Your task to perform on an android device: change alarm snooze length Image 0: 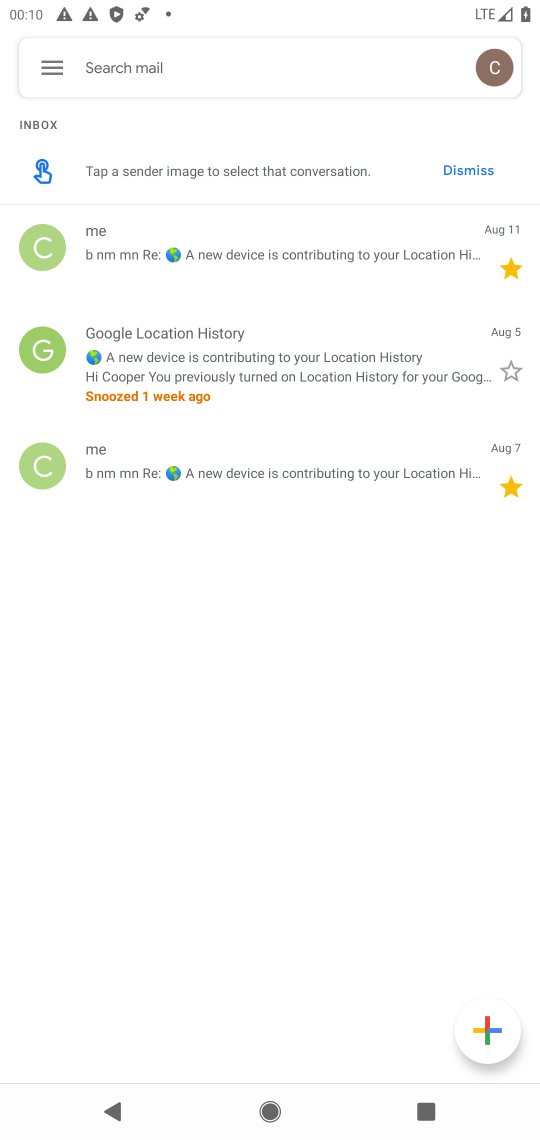
Step 0: press home button
Your task to perform on an android device: change alarm snooze length Image 1: 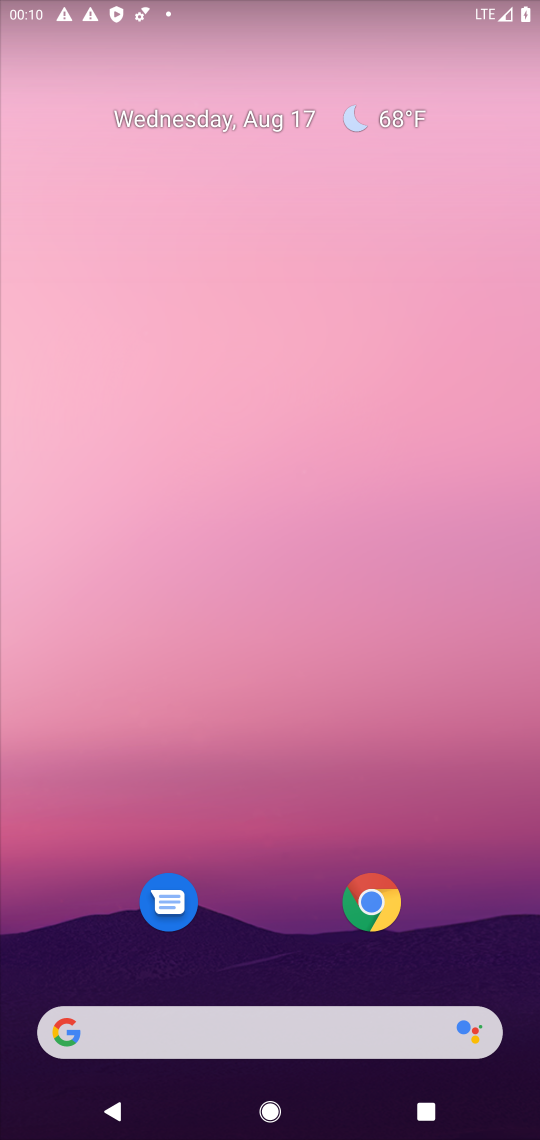
Step 1: drag from (271, 1010) to (354, 0)
Your task to perform on an android device: change alarm snooze length Image 2: 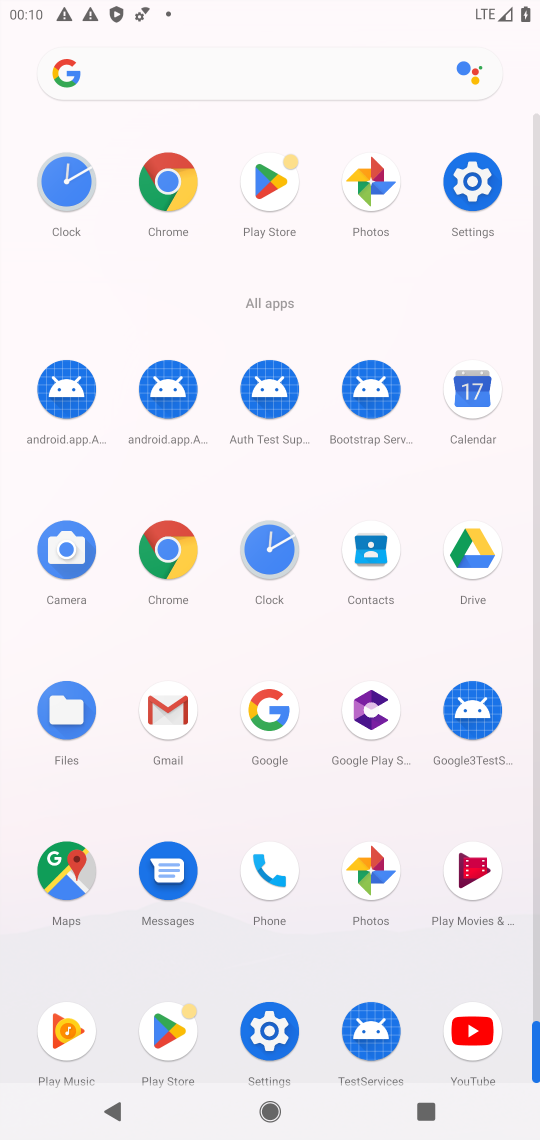
Step 2: click (266, 1008)
Your task to perform on an android device: change alarm snooze length Image 3: 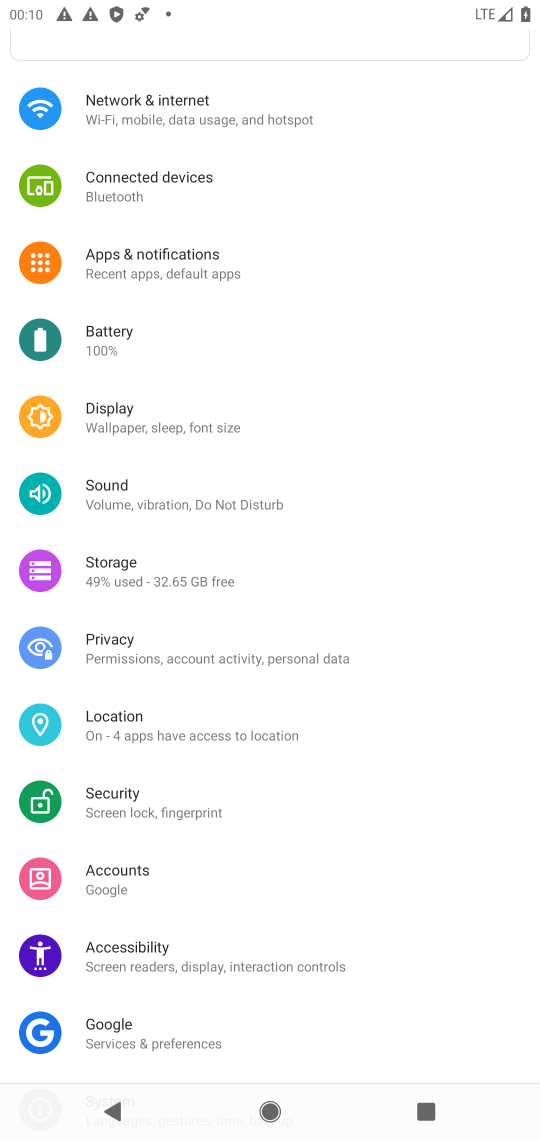
Step 3: press home button
Your task to perform on an android device: change alarm snooze length Image 4: 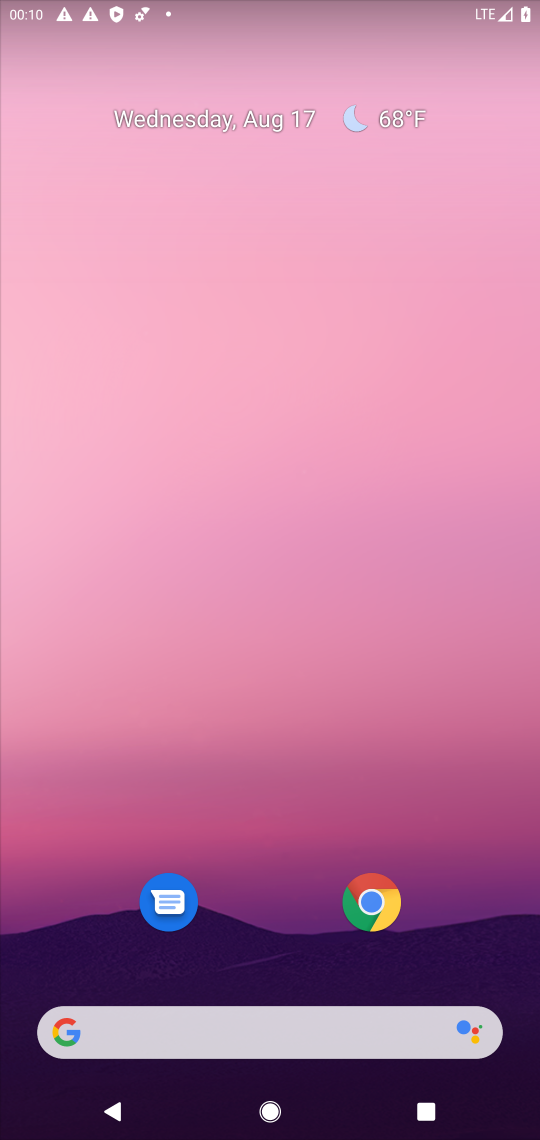
Step 4: drag from (211, 902) to (266, 355)
Your task to perform on an android device: change alarm snooze length Image 5: 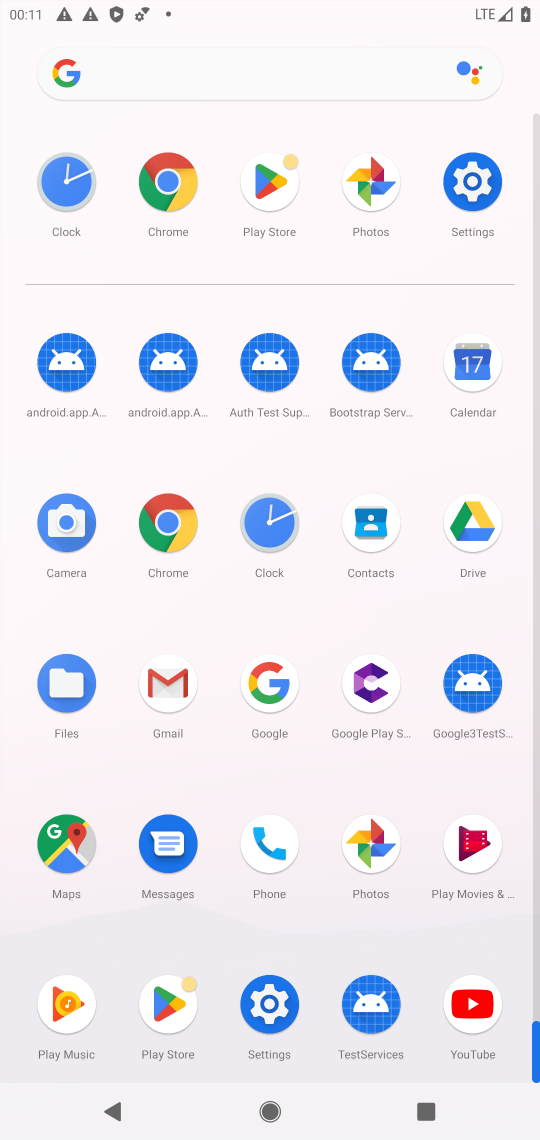
Step 5: click (257, 548)
Your task to perform on an android device: change alarm snooze length Image 6: 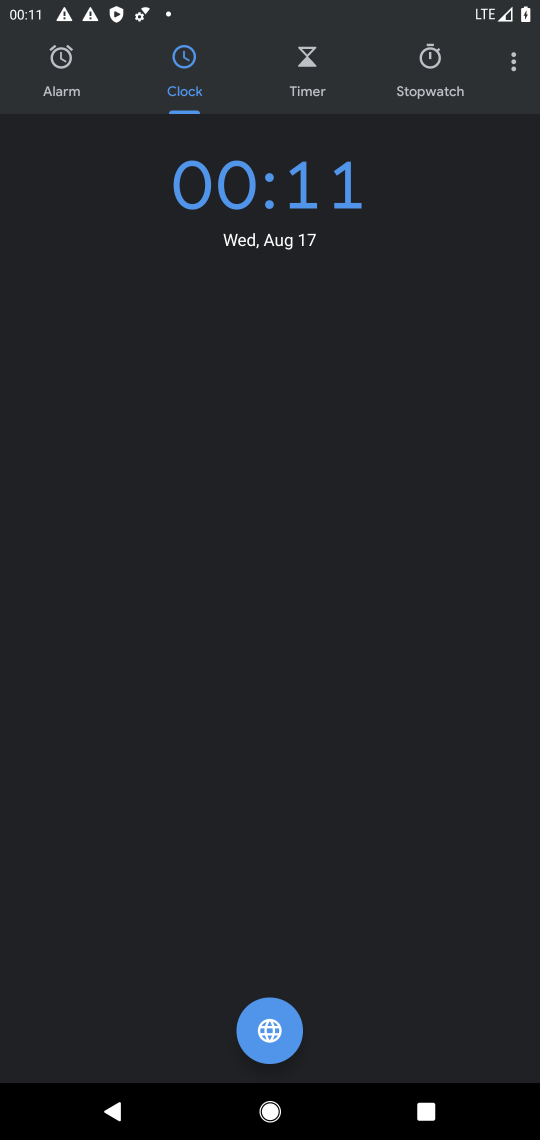
Step 6: click (512, 60)
Your task to perform on an android device: change alarm snooze length Image 7: 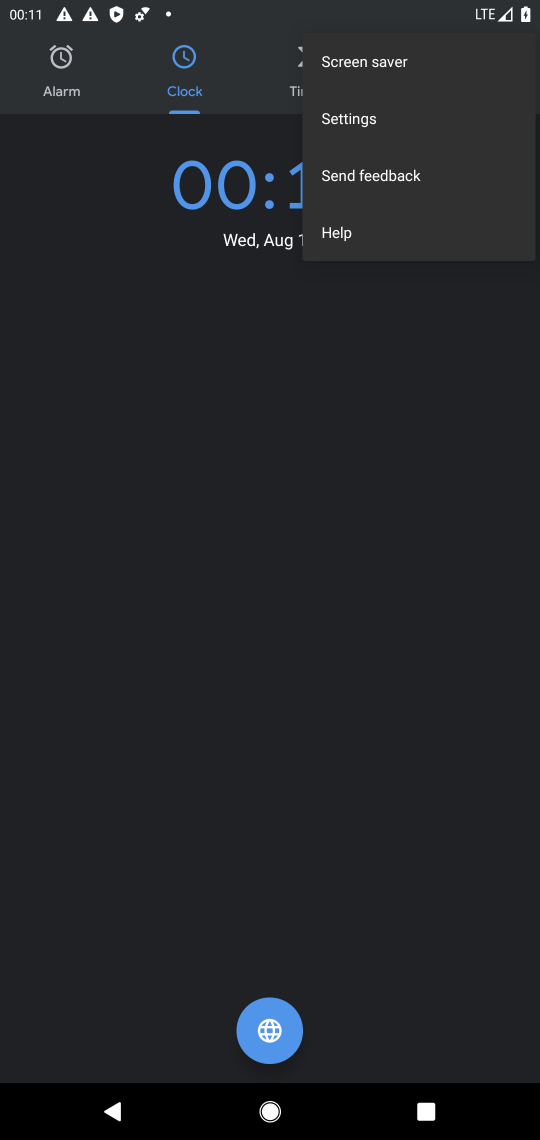
Step 7: click (368, 137)
Your task to perform on an android device: change alarm snooze length Image 8: 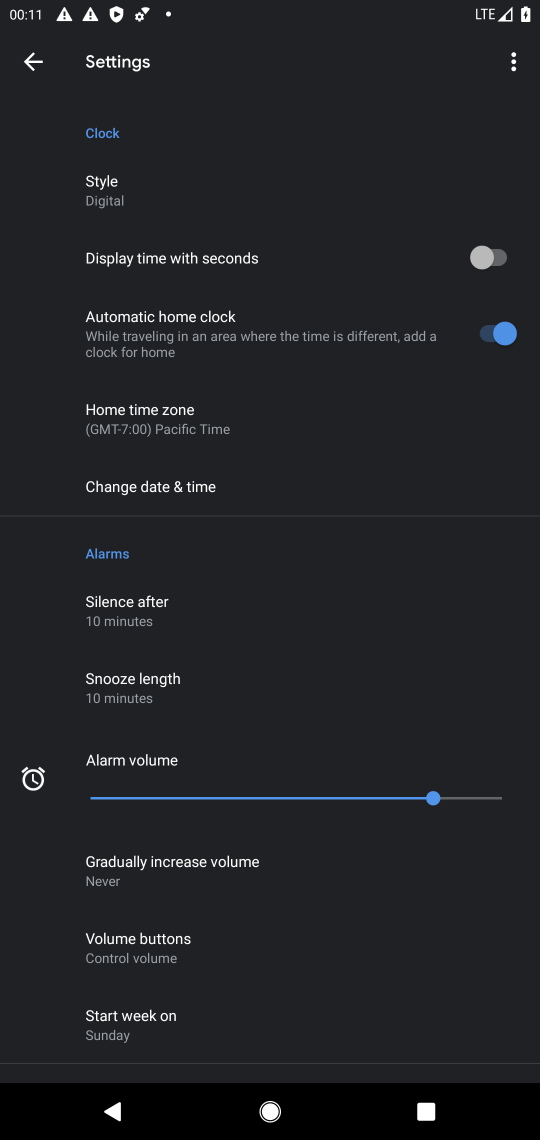
Step 8: click (158, 691)
Your task to perform on an android device: change alarm snooze length Image 9: 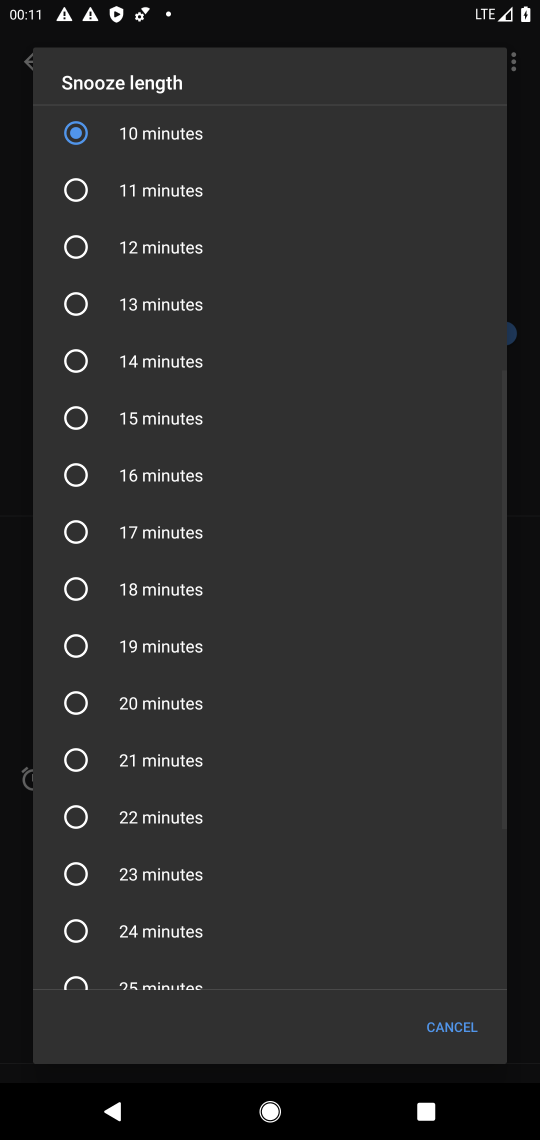
Step 9: click (142, 442)
Your task to perform on an android device: change alarm snooze length Image 10: 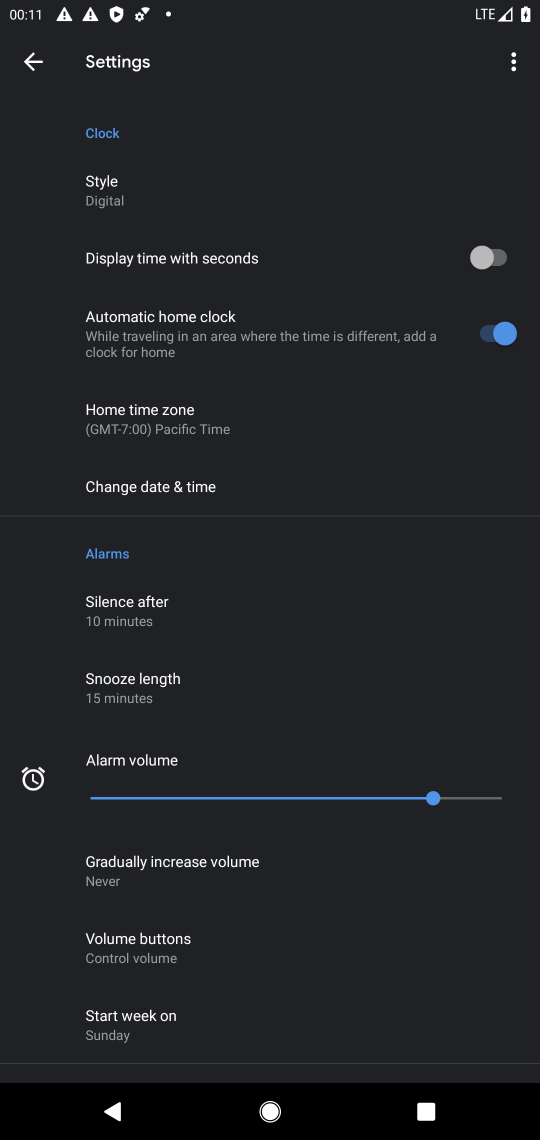
Step 10: task complete